Your task to perform on an android device: turn on notifications settings in the gmail app Image 0: 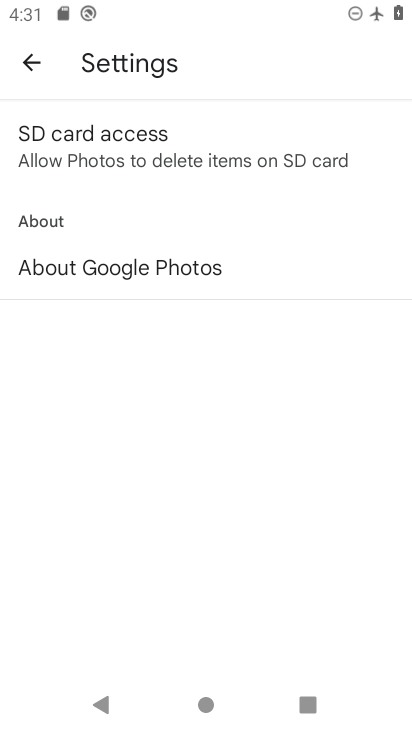
Step 0: press home button
Your task to perform on an android device: turn on notifications settings in the gmail app Image 1: 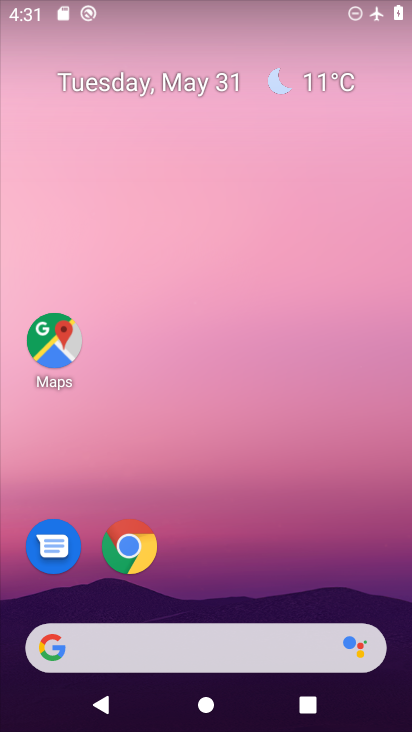
Step 1: drag from (282, 540) to (195, 13)
Your task to perform on an android device: turn on notifications settings in the gmail app Image 2: 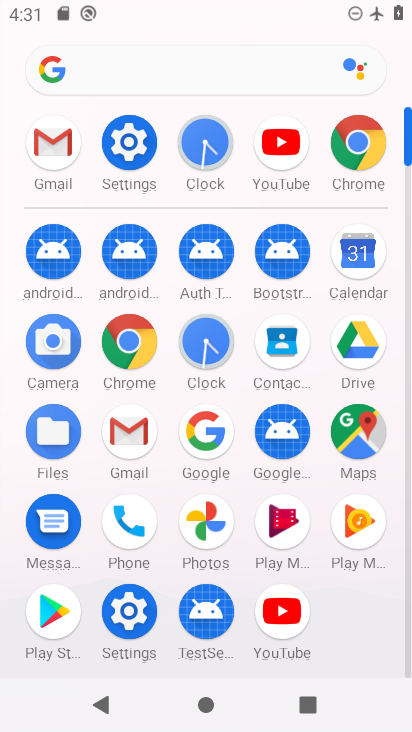
Step 2: click (48, 151)
Your task to perform on an android device: turn on notifications settings in the gmail app Image 3: 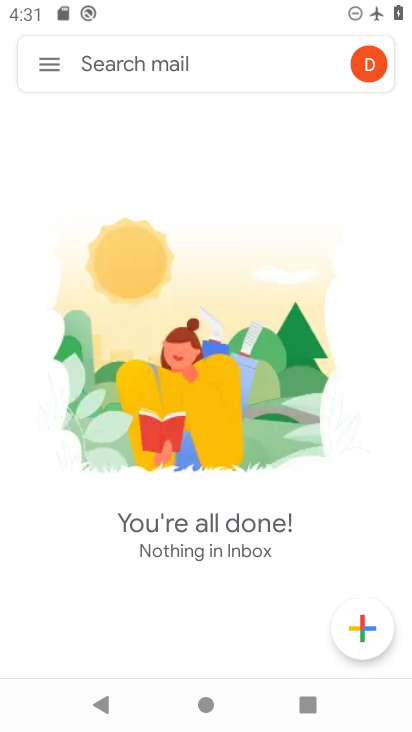
Step 3: click (49, 61)
Your task to perform on an android device: turn on notifications settings in the gmail app Image 4: 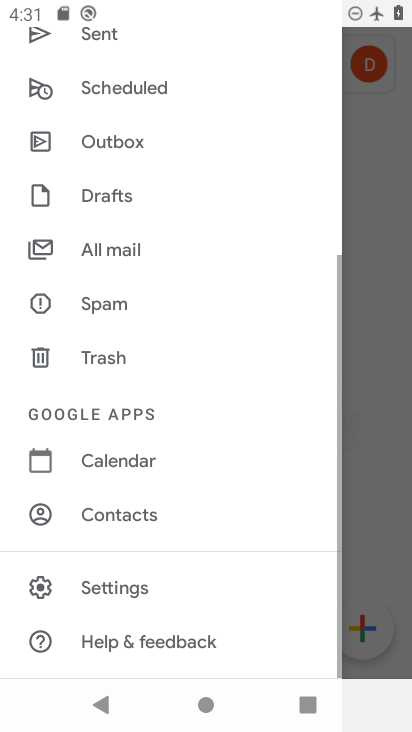
Step 4: click (169, 598)
Your task to perform on an android device: turn on notifications settings in the gmail app Image 5: 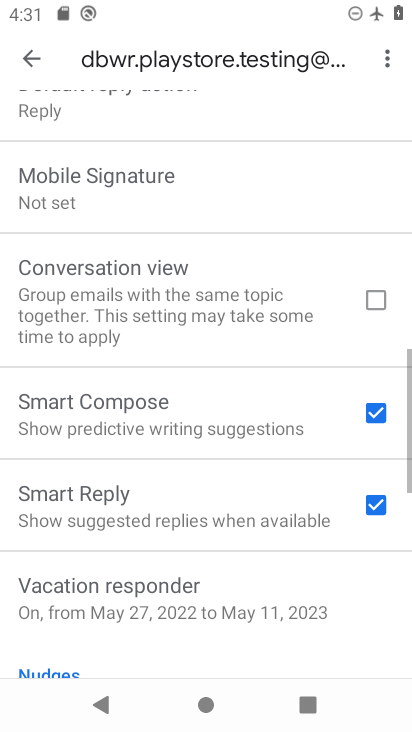
Step 5: drag from (157, 214) to (212, 699)
Your task to perform on an android device: turn on notifications settings in the gmail app Image 6: 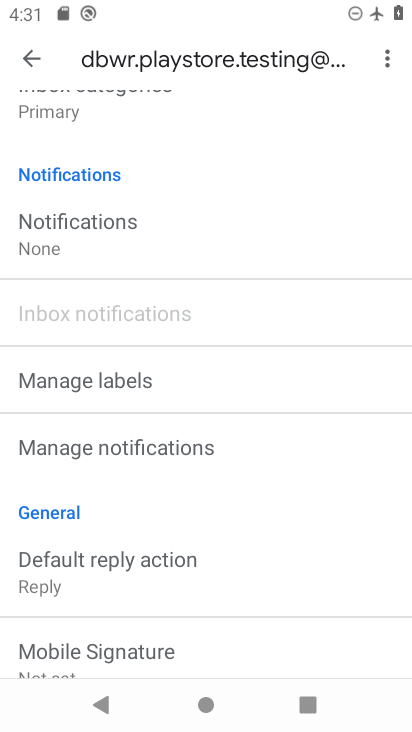
Step 6: click (132, 234)
Your task to perform on an android device: turn on notifications settings in the gmail app Image 7: 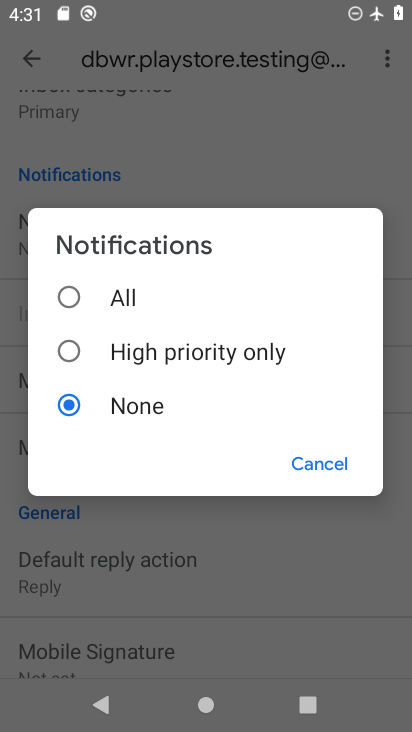
Step 7: click (119, 289)
Your task to perform on an android device: turn on notifications settings in the gmail app Image 8: 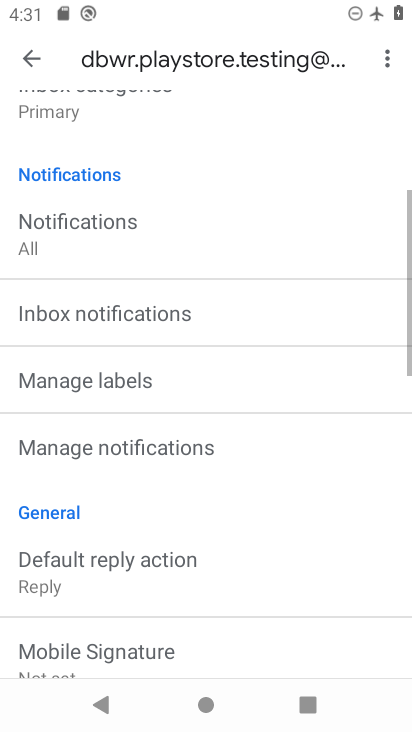
Step 8: task complete